Your task to perform on an android device: Open my contact list Image 0: 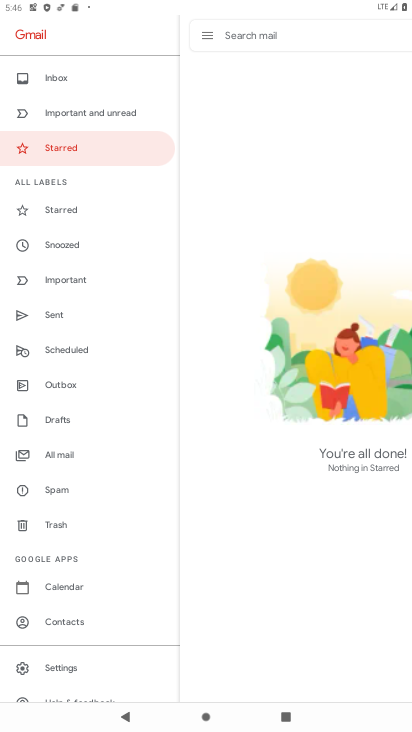
Step 0: press home button
Your task to perform on an android device: Open my contact list Image 1: 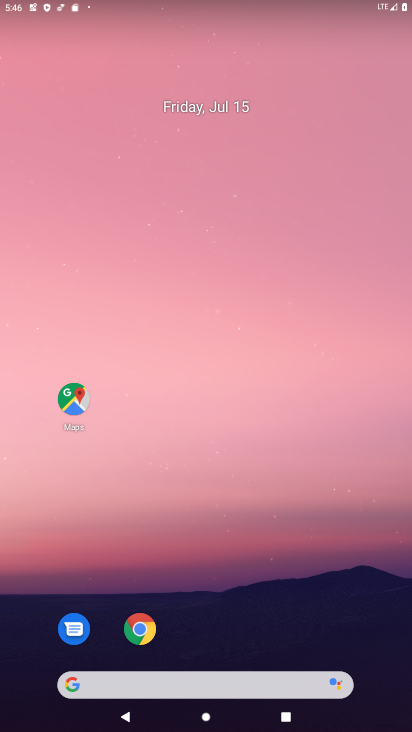
Step 1: drag from (253, 621) to (361, 1)
Your task to perform on an android device: Open my contact list Image 2: 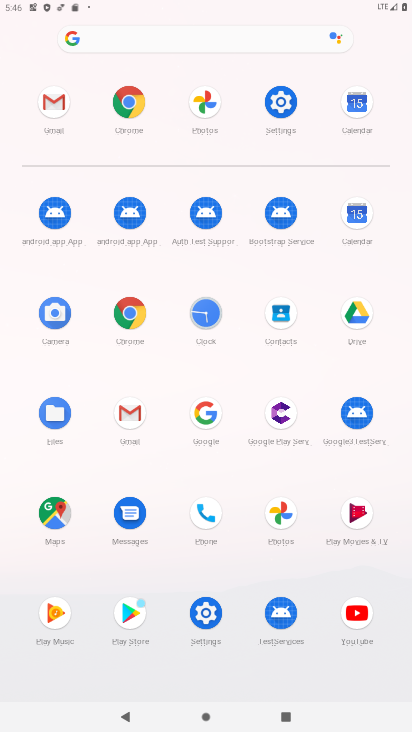
Step 2: click (286, 313)
Your task to perform on an android device: Open my contact list Image 3: 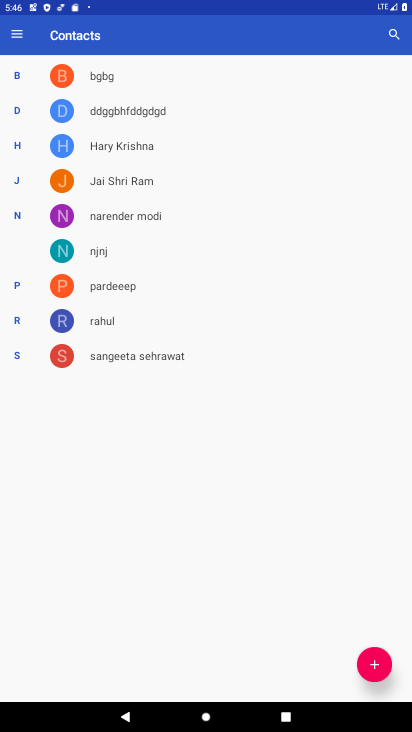
Step 3: task complete